Your task to perform on an android device: Open calendar and show me the first week of next month Image 0: 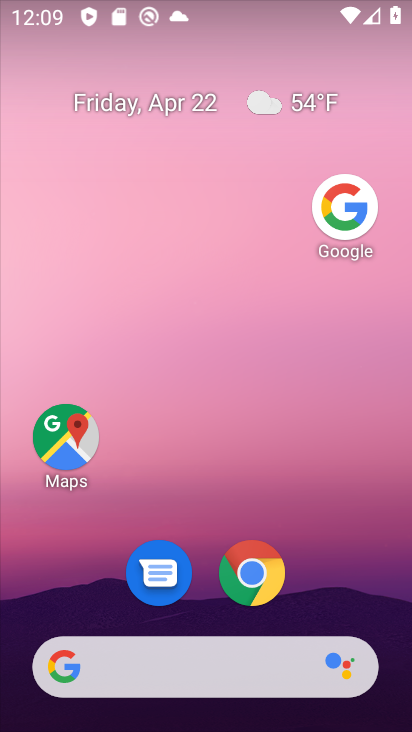
Step 0: press home button
Your task to perform on an android device: Open calendar and show me the first week of next month Image 1: 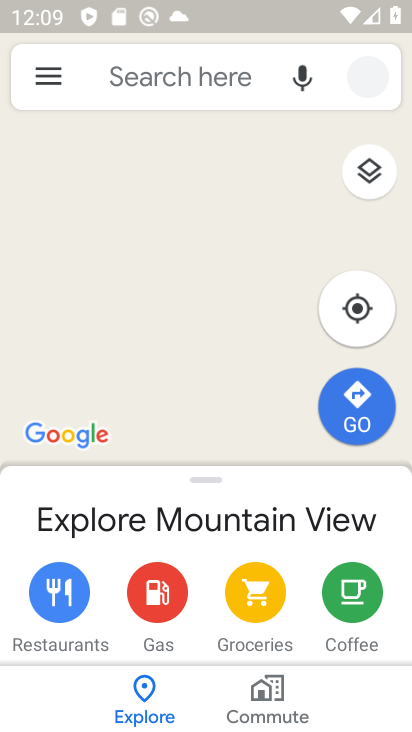
Step 1: drag from (164, 668) to (380, 221)
Your task to perform on an android device: Open calendar and show me the first week of next month Image 2: 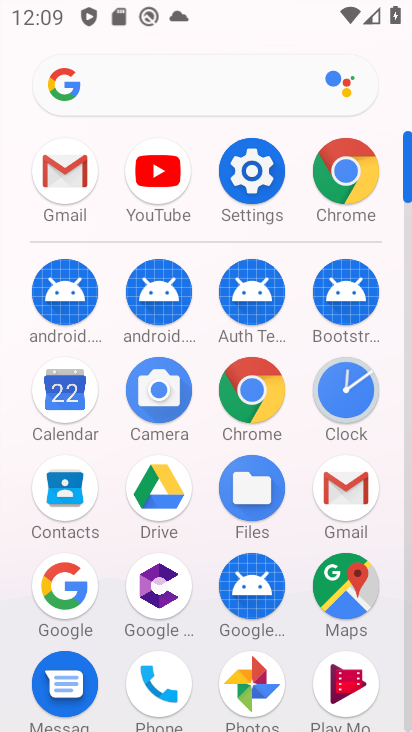
Step 2: press home button
Your task to perform on an android device: Open calendar and show me the first week of next month Image 3: 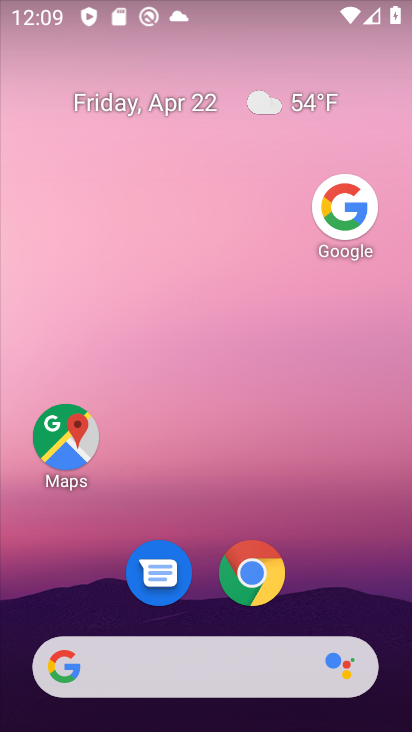
Step 3: drag from (207, 666) to (321, 151)
Your task to perform on an android device: Open calendar and show me the first week of next month Image 4: 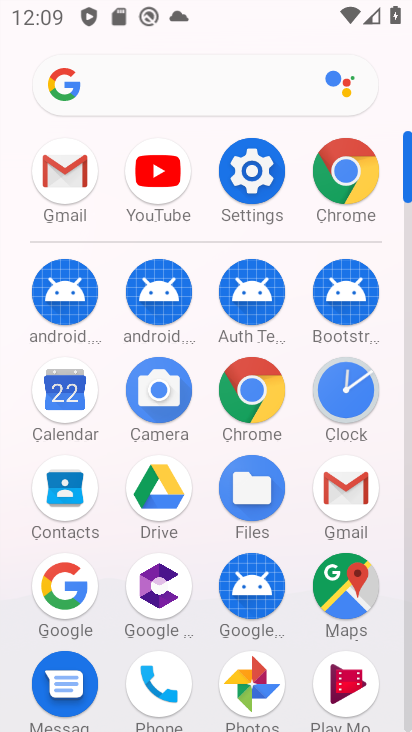
Step 4: click (68, 397)
Your task to perform on an android device: Open calendar and show me the first week of next month Image 5: 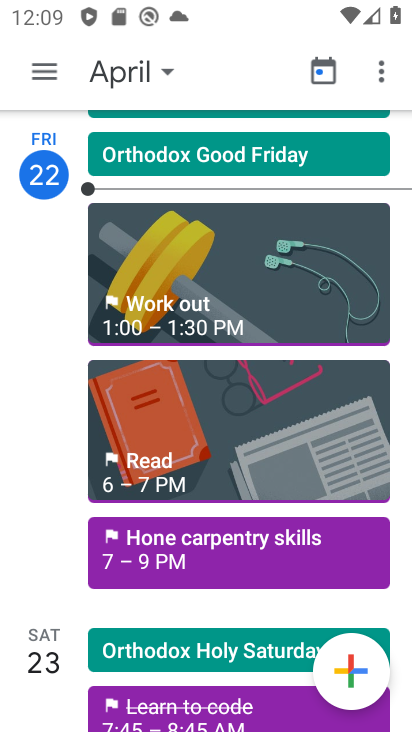
Step 5: click (119, 72)
Your task to perform on an android device: Open calendar and show me the first week of next month Image 6: 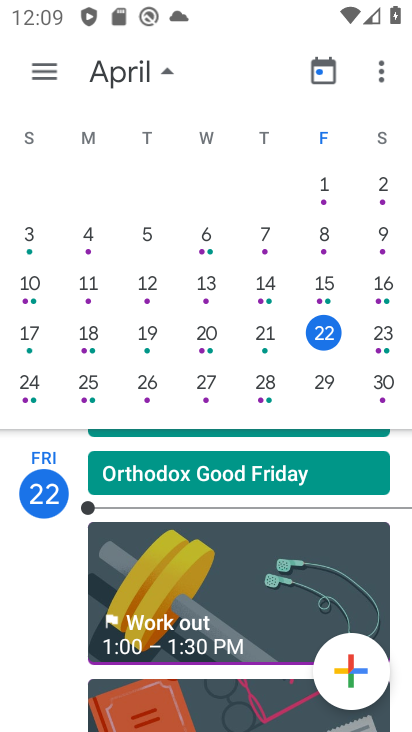
Step 6: drag from (306, 277) to (8, 303)
Your task to perform on an android device: Open calendar and show me the first week of next month Image 7: 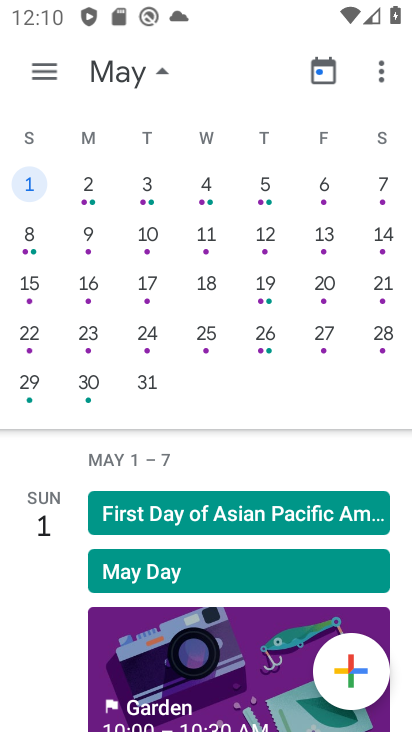
Step 7: click (52, 68)
Your task to perform on an android device: Open calendar and show me the first week of next month Image 8: 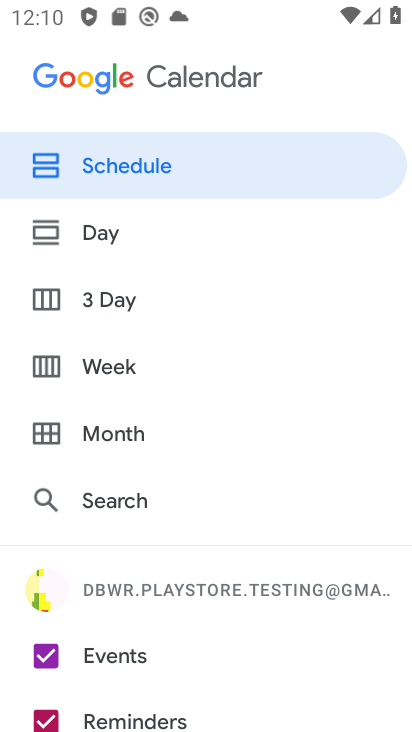
Step 8: click (131, 371)
Your task to perform on an android device: Open calendar and show me the first week of next month Image 9: 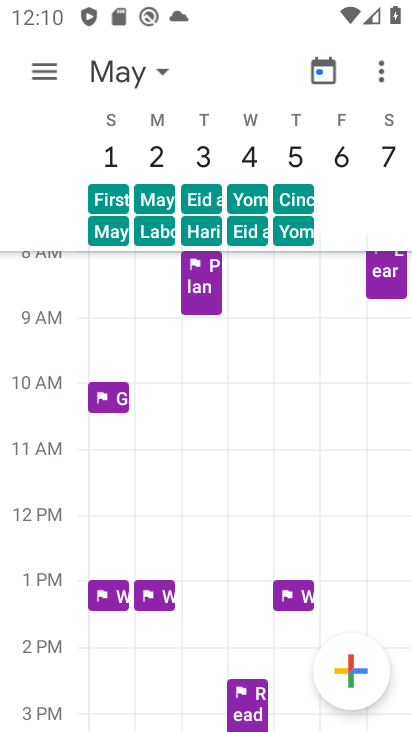
Step 9: task complete